Your task to perform on an android device: empty trash in the gmail app Image 0: 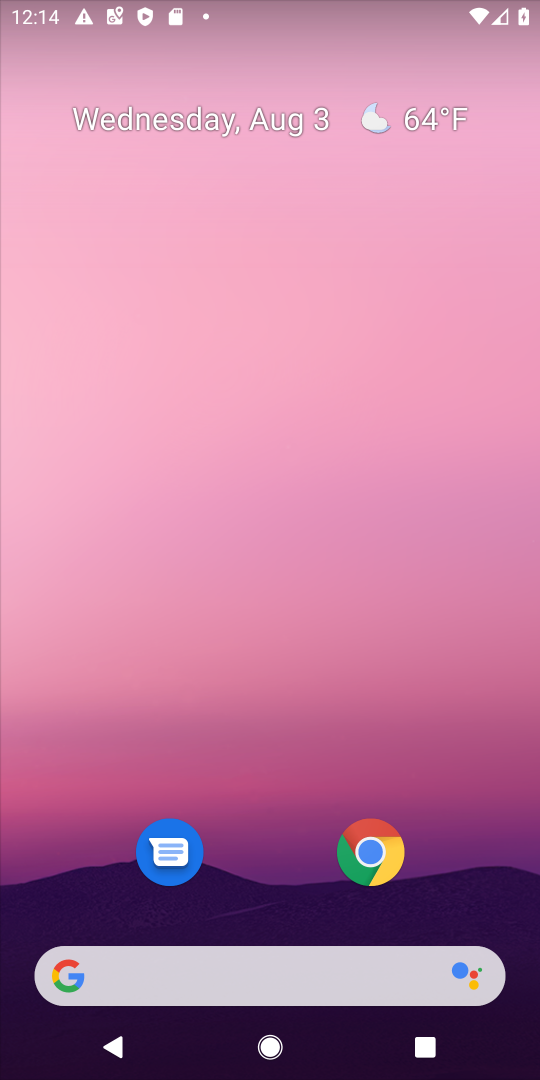
Step 0: drag from (478, 885) to (176, 134)
Your task to perform on an android device: empty trash in the gmail app Image 1: 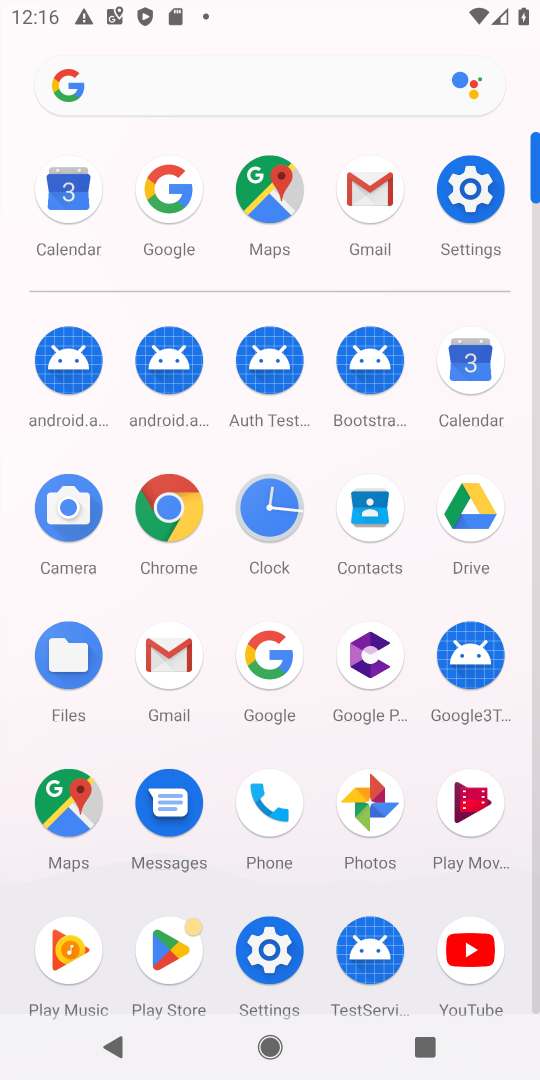
Step 1: click (172, 648)
Your task to perform on an android device: empty trash in the gmail app Image 2: 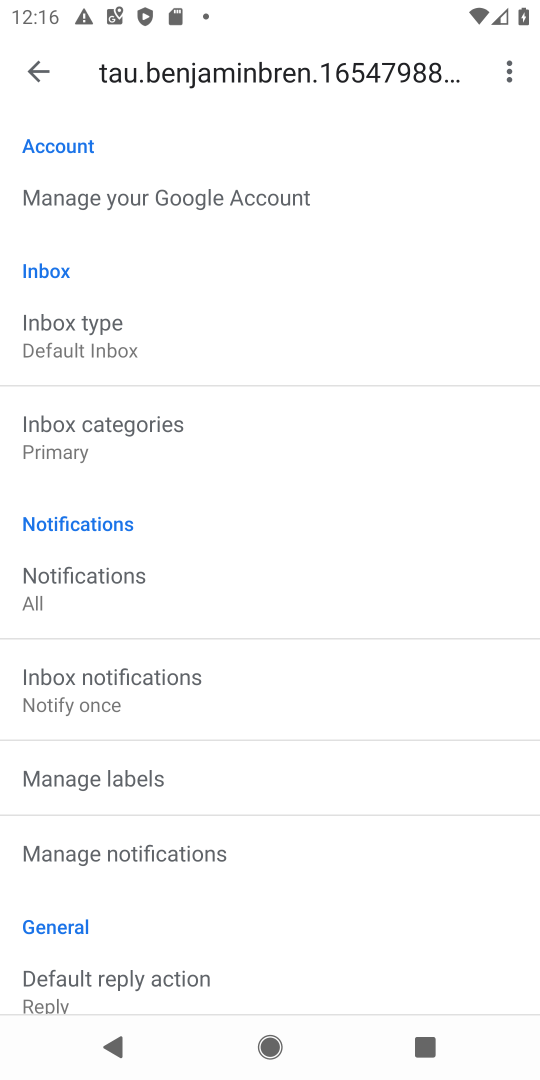
Step 2: press back button
Your task to perform on an android device: empty trash in the gmail app Image 3: 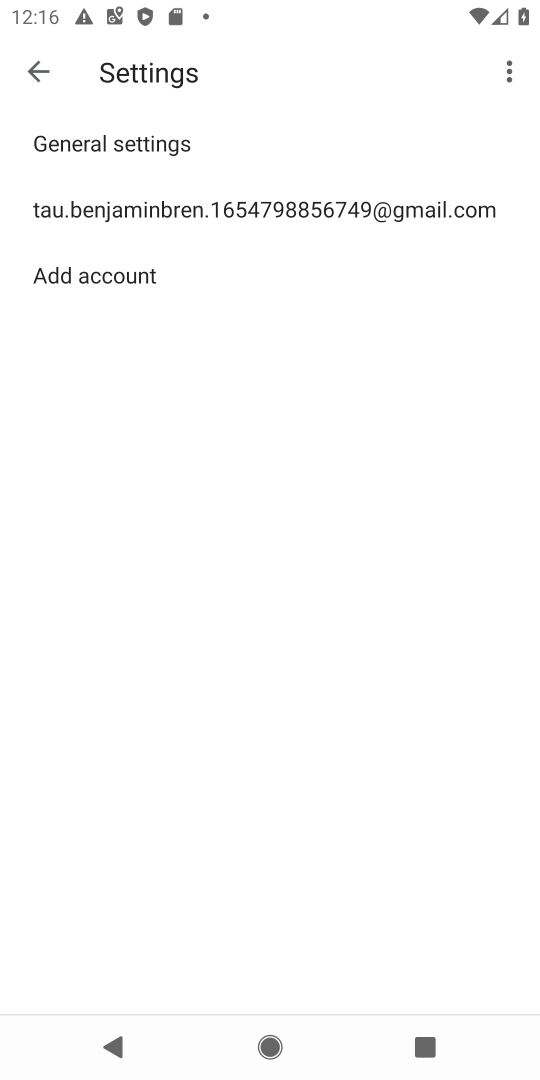
Step 3: press back button
Your task to perform on an android device: empty trash in the gmail app Image 4: 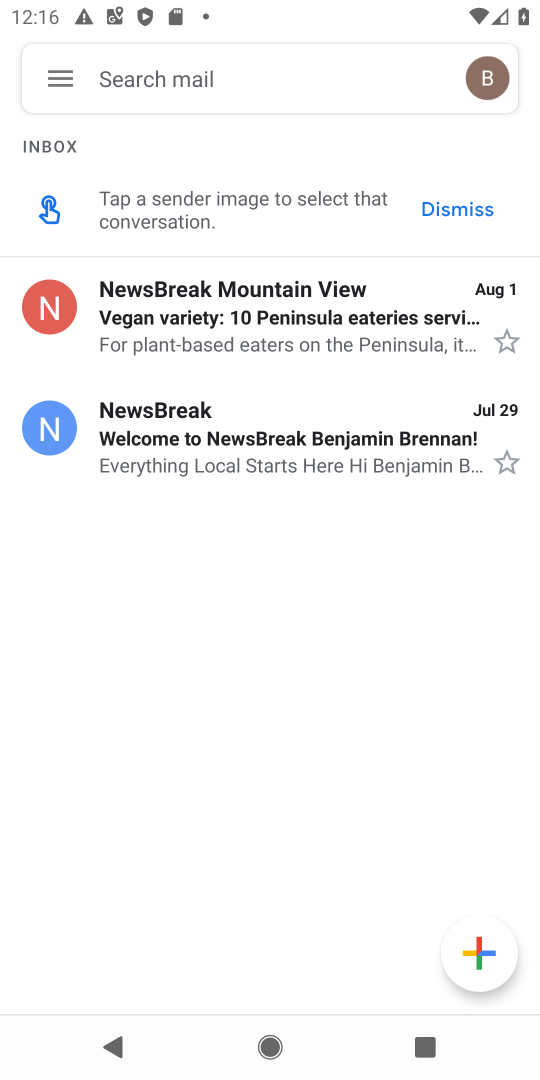
Step 4: click (62, 90)
Your task to perform on an android device: empty trash in the gmail app Image 5: 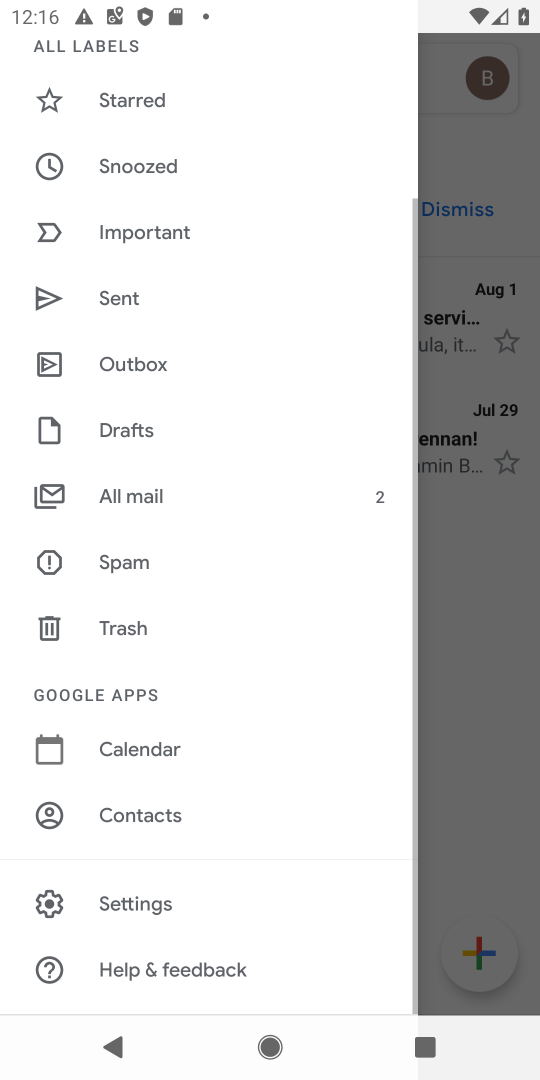
Step 5: click (114, 615)
Your task to perform on an android device: empty trash in the gmail app Image 6: 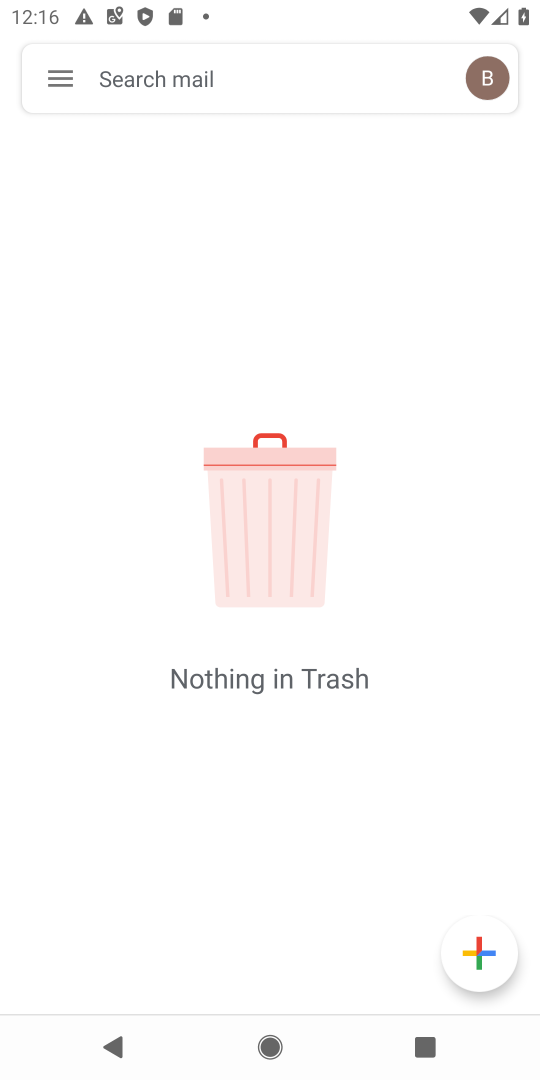
Step 6: task complete